Your task to perform on an android device: turn off javascript in the chrome app Image 0: 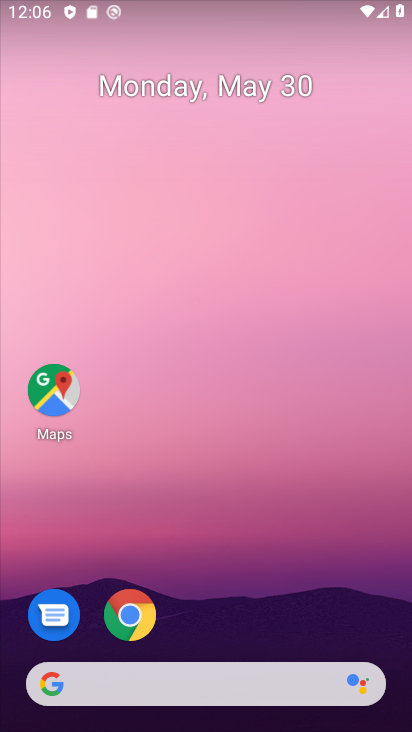
Step 0: click (132, 621)
Your task to perform on an android device: turn off javascript in the chrome app Image 1: 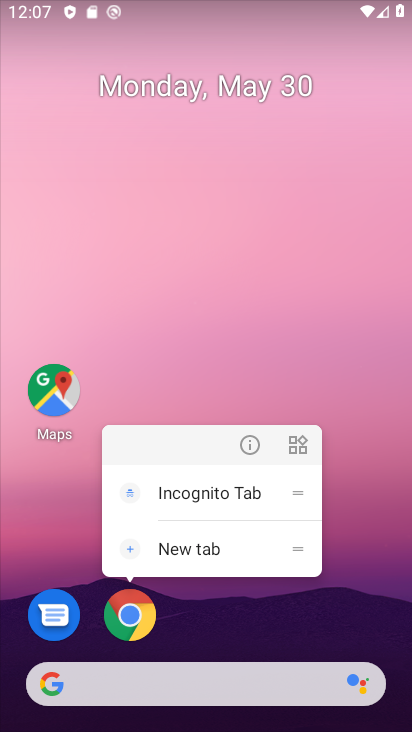
Step 1: click (132, 613)
Your task to perform on an android device: turn off javascript in the chrome app Image 2: 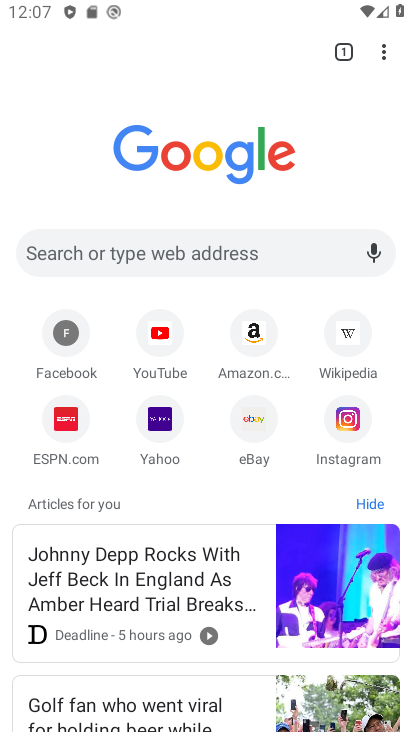
Step 2: drag from (382, 50) to (234, 438)
Your task to perform on an android device: turn off javascript in the chrome app Image 3: 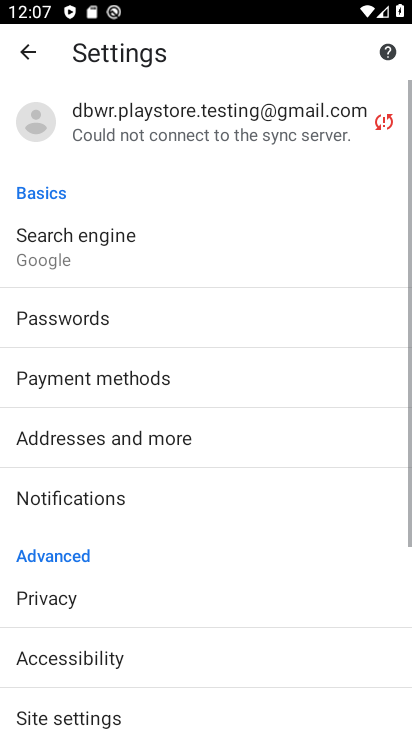
Step 3: drag from (158, 683) to (203, 317)
Your task to perform on an android device: turn off javascript in the chrome app Image 4: 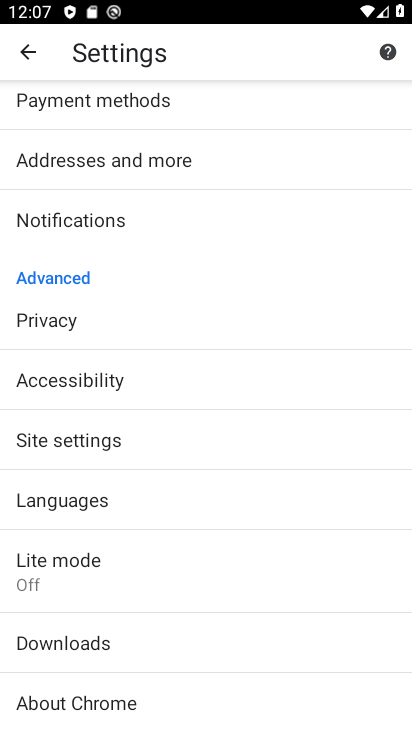
Step 4: click (58, 435)
Your task to perform on an android device: turn off javascript in the chrome app Image 5: 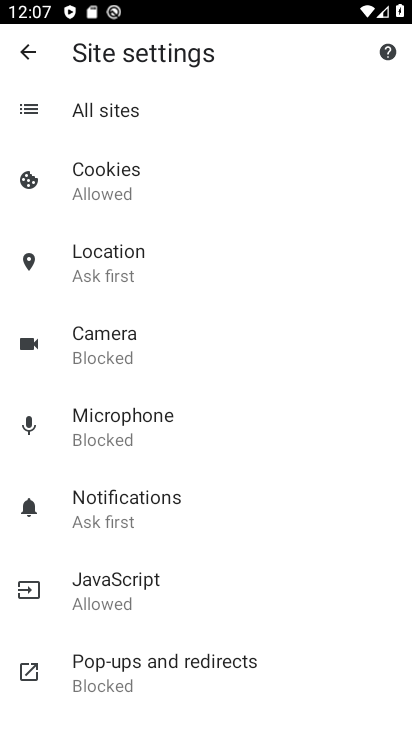
Step 5: click (103, 585)
Your task to perform on an android device: turn off javascript in the chrome app Image 6: 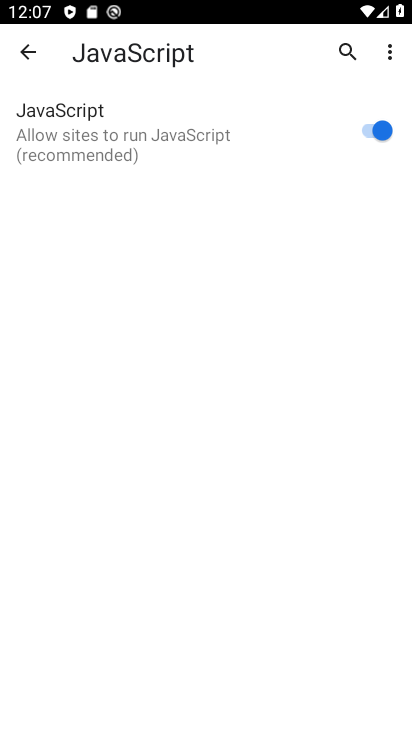
Step 6: click (379, 130)
Your task to perform on an android device: turn off javascript in the chrome app Image 7: 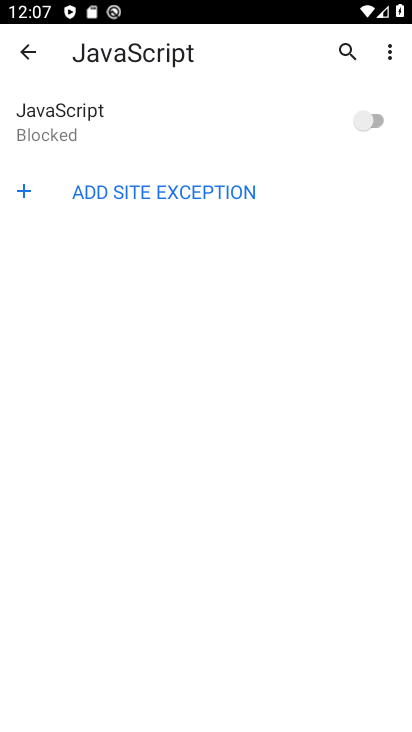
Step 7: task complete